Your task to perform on an android device: turn off notifications settings in the gmail app Image 0: 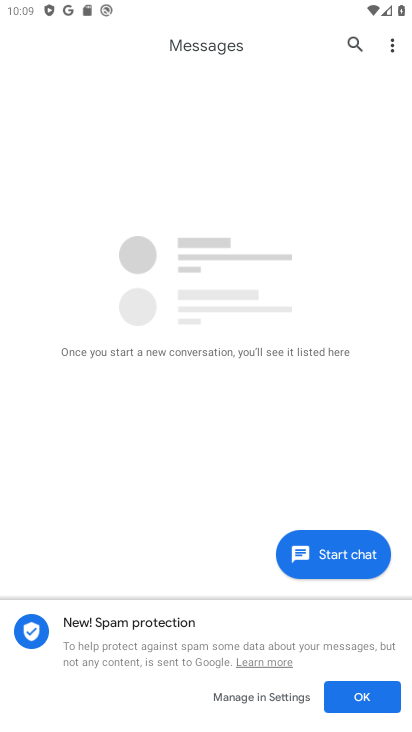
Step 0: press home button
Your task to perform on an android device: turn off notifications settings in the gmail app Image 1: 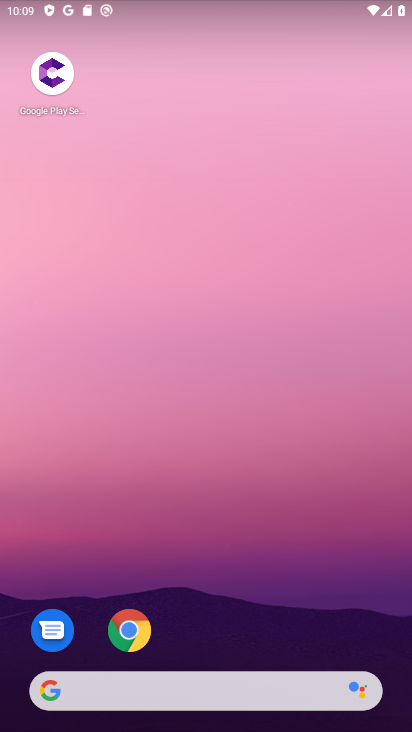
Step 1: drag from (296, 536) to (260, 2)
Your task to perform on an android device: turn off notifications settings in the gmail app Image 2: 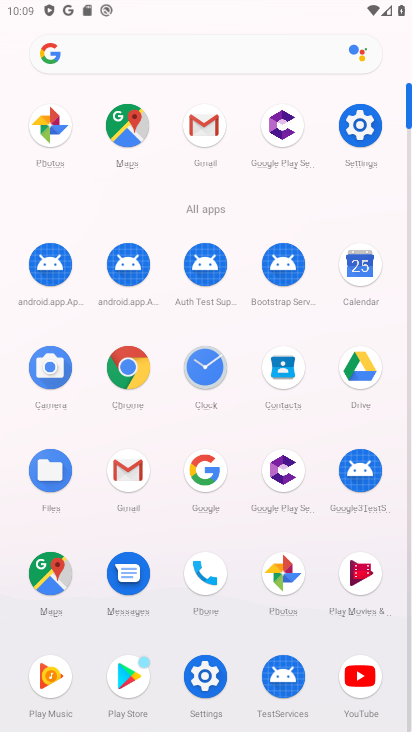
Step 2: click (132, 472)
Your task to perform on an android device: turn off notifications settings in the gmail app Image 3: 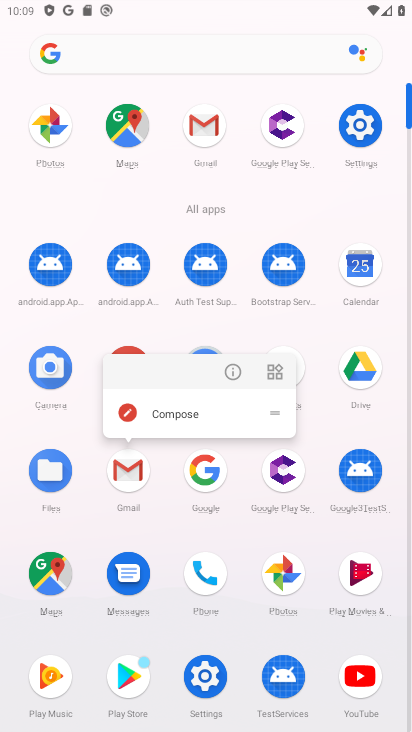
Step 3: click (229, 369)
Your task to perform on an android device: turn off notifications settings in the gmail app Image 4: 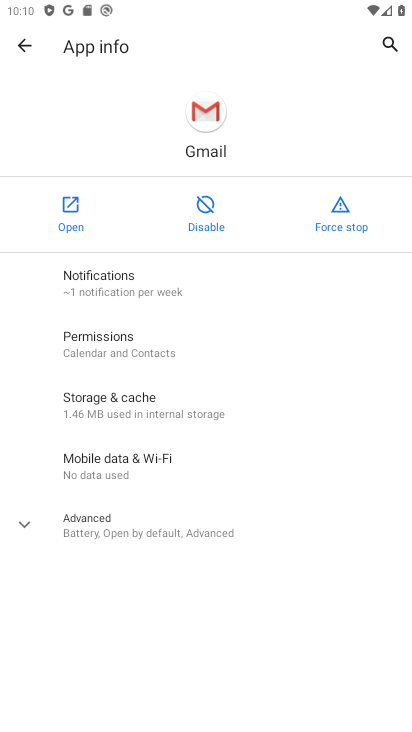
Step 4: click (151, 278)
Your task to perform on an android device: turn off notifications settings in the gmail app Image 5: 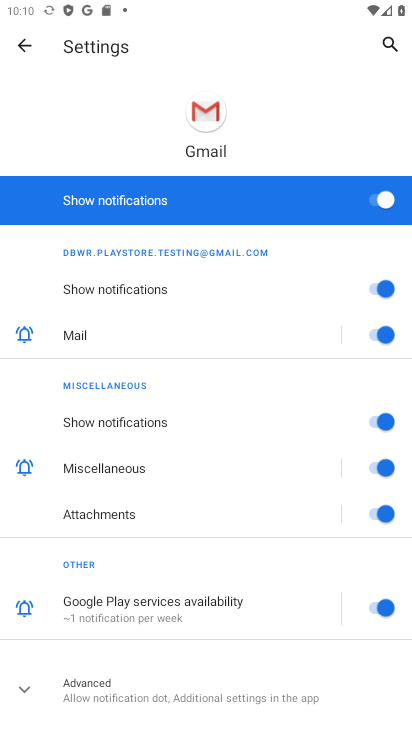
Step 5: click (389, 206)
Your task to perform on an android device: turn off notifications settings in the gmail app Image 6: 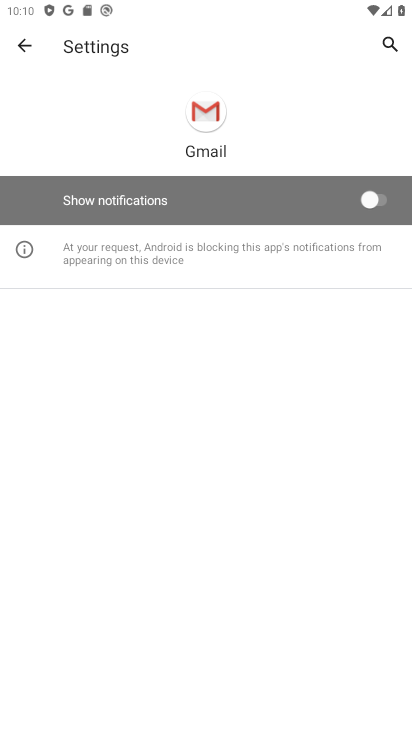
Step 6: task complete